Your task to perform on an android device: delete a single message in the gmail app Image 0: 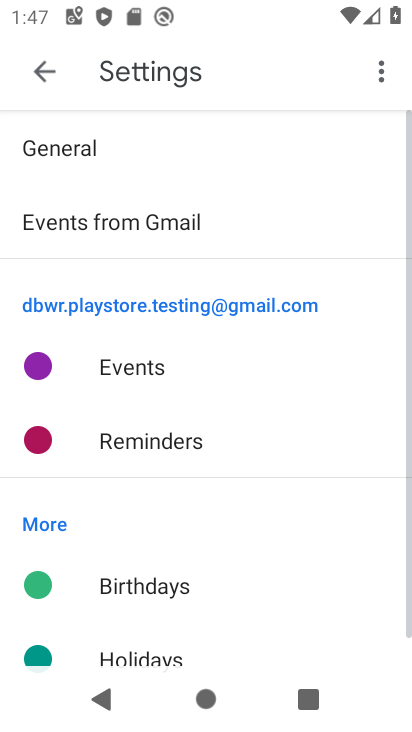
Step 0: press home button
Your task to perform on an android device: delete a single message in the gmail app Image 1: 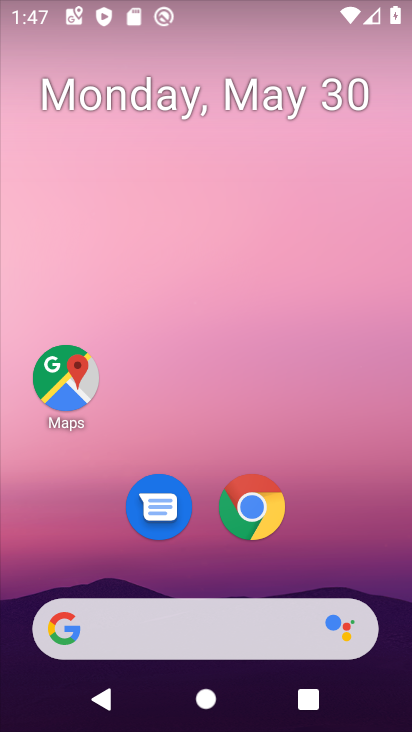
Step 1: drag from (243, 580) to (199, 25)
Your task to perform on an android device: delete a single message in the gmail app Image 2: 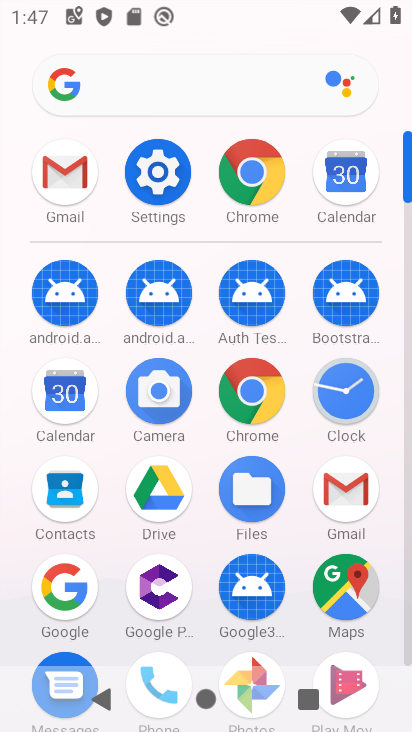
Step 2: click (43, 190)
Your task to perform on an android device: delete a single message in the gmail app Image 3: 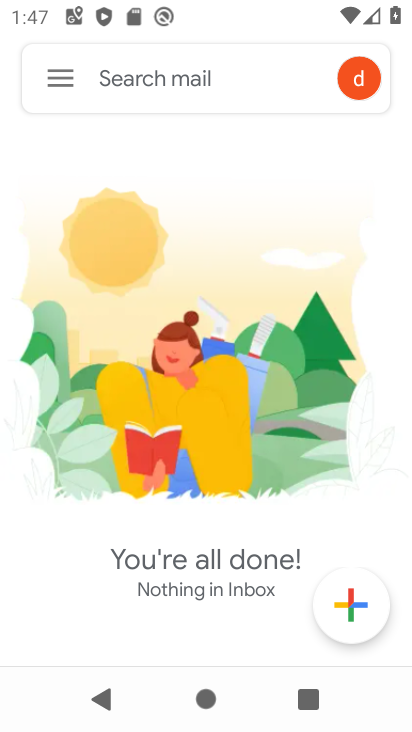
Step 3: click (88, 83)
Your task to perform on an android device: delete a single message in the gmail app Image 4: 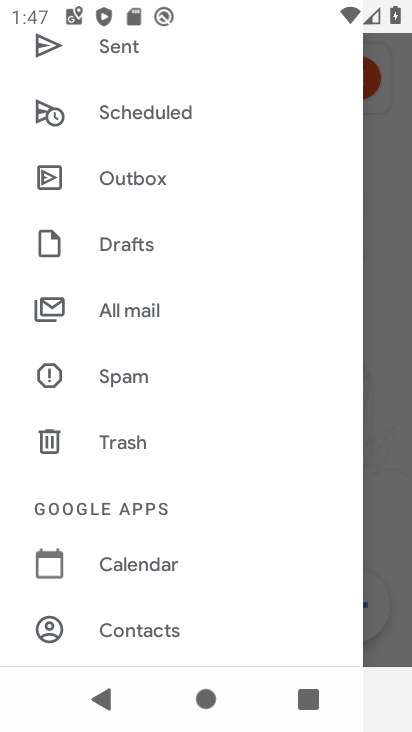
Step 4: click (92, 280)
Your task to perform on an android device: delete a single message in the gmail app Image 5: 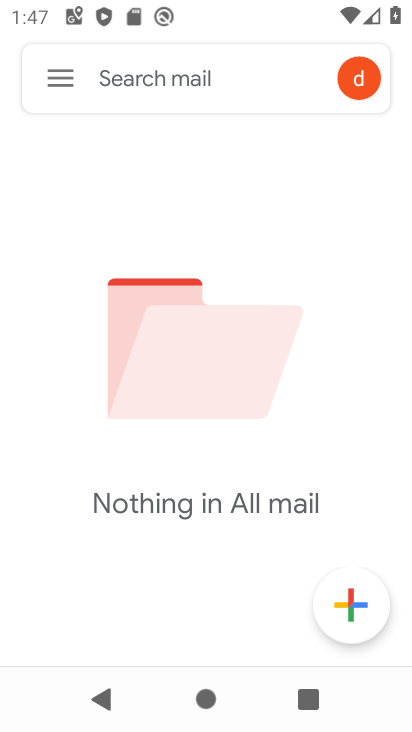
Step 5: task complete